Your task to perform on an android device: Turn on the flashlight Image 0: 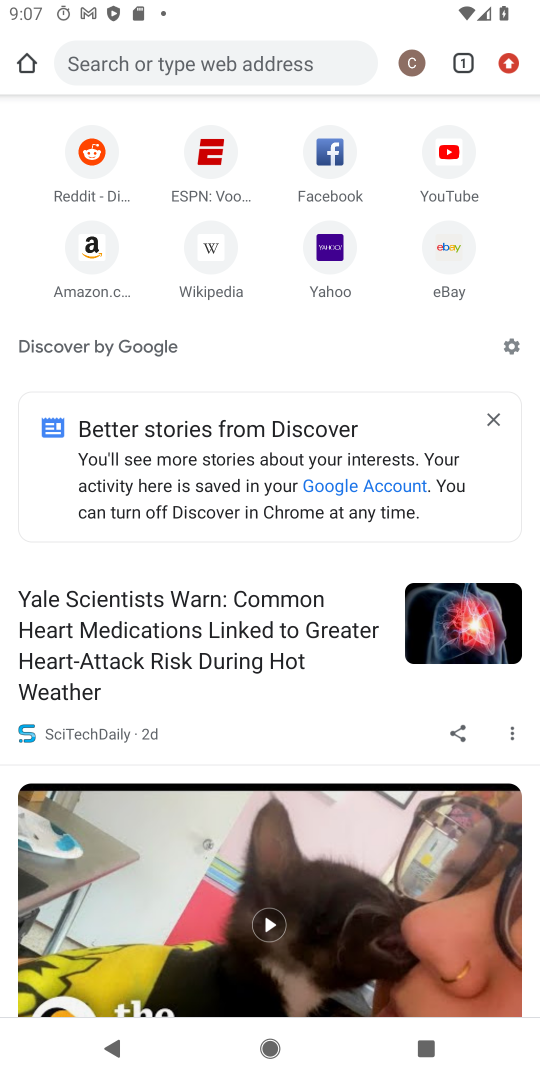
Step 0: press home button
Your task to perform on an android device: Turn on the flashlight Image 1: 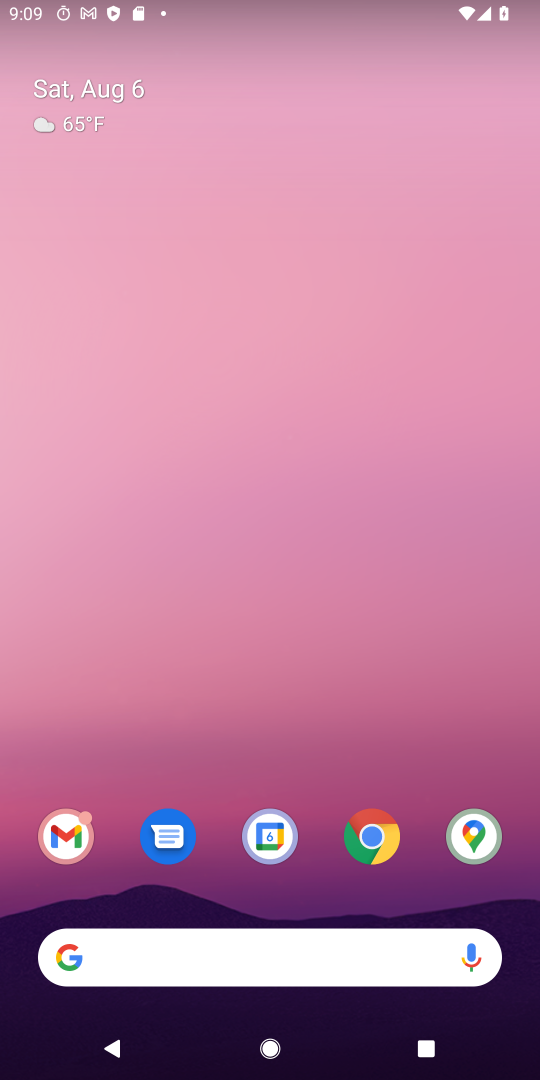
Step 1: drag from (257, 11) to (313, 1079)
Your task to perform on an android device: Turn on the flashlight Image 2: 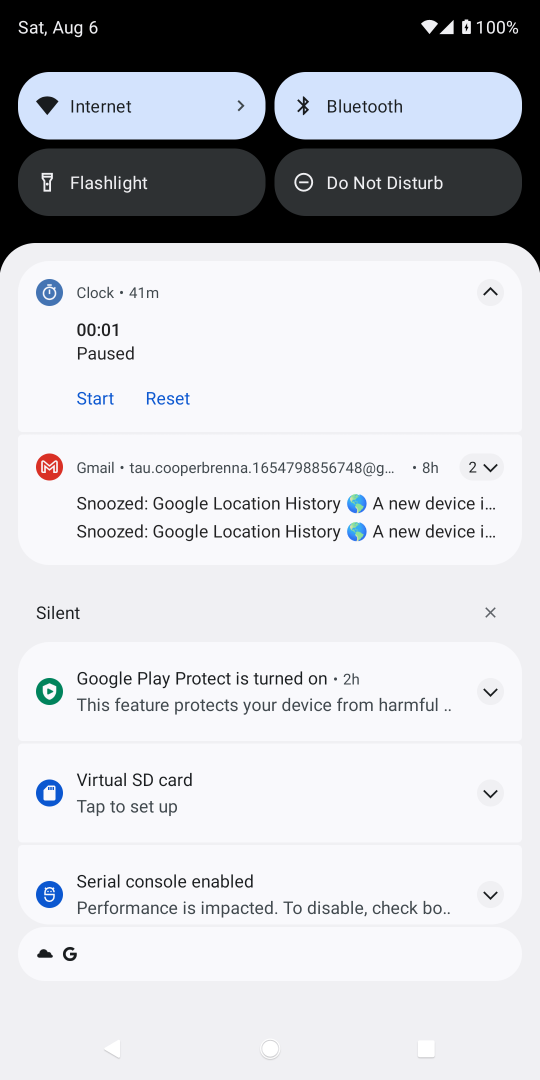
Step 2: click (122, 205)
Your task to perform on an android device: Turn on the flashlight Image 3: 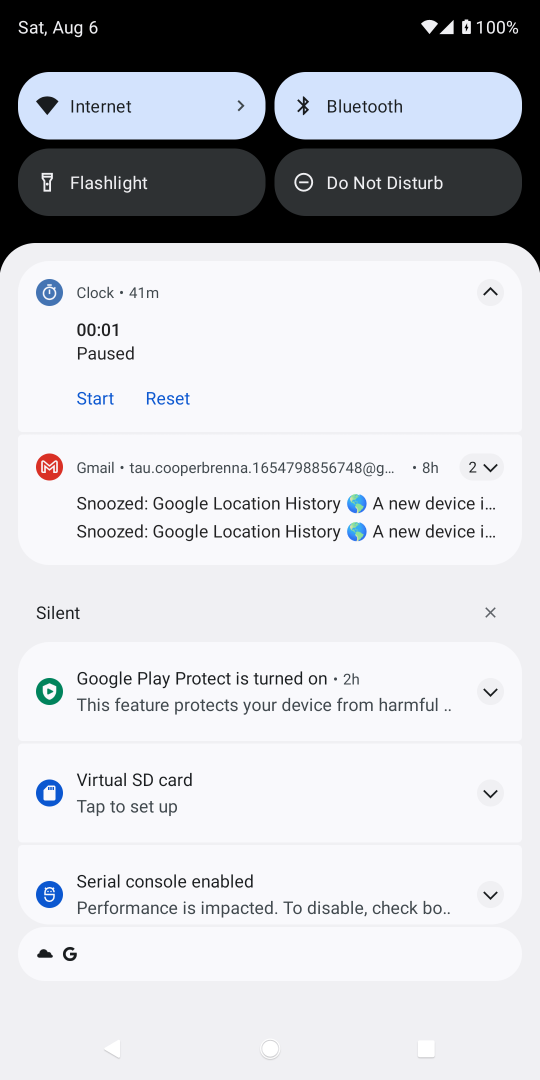
Step 3: task complete